Your task to perform on an android device: Go to Reddit.com Image 0: 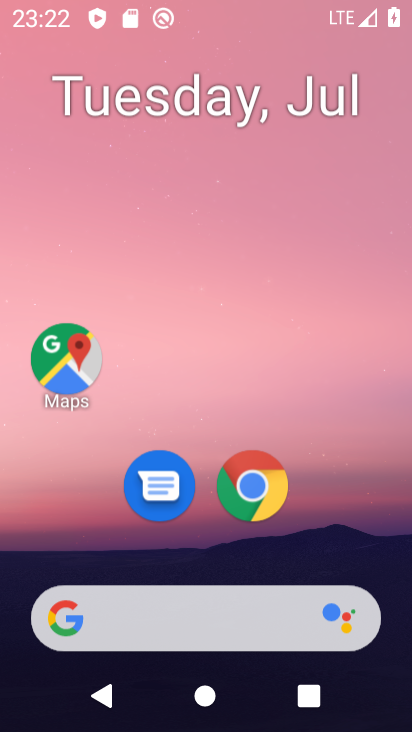
Step 0: click (369, 118)
Your task to perform on an android device: Go to Reddit.com Image 1: 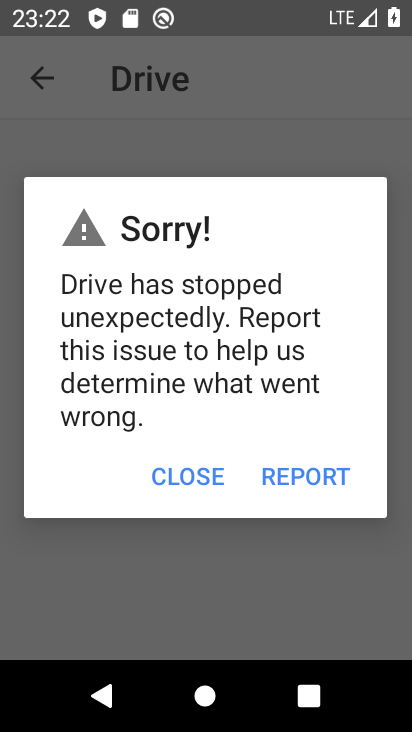
Step 1: press home button
Your task to perform on an android device: Go to Reddit.com Image 2: 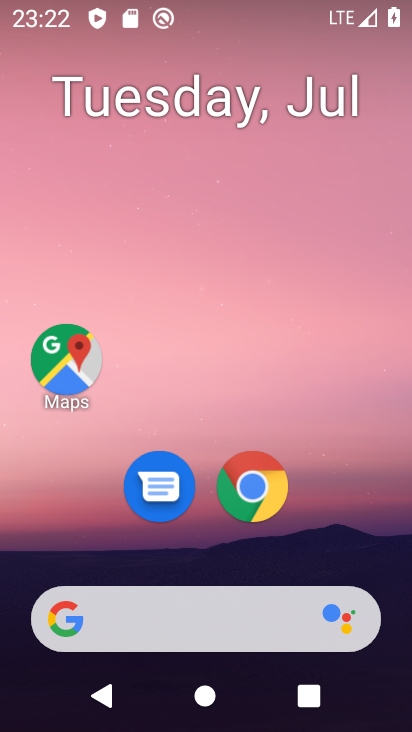
Step 2: drag from (318, 553) to (353, 82)
Your task to perform on an android device: Go to Reddit.com Image 3: 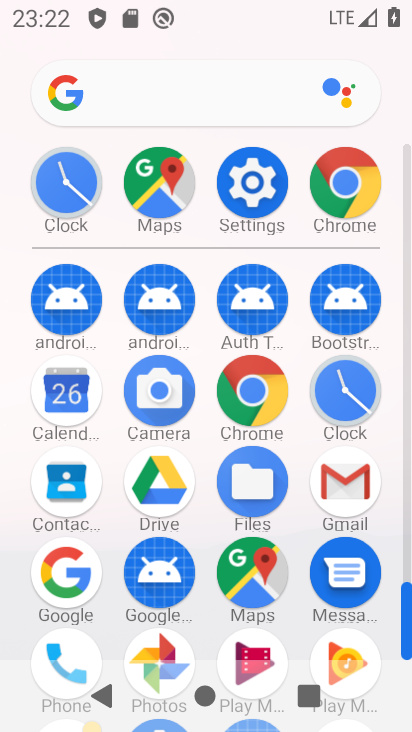
Step 3: click (254, 388)
Your task to perform on an android device: Go to Reddit.com Image 4: 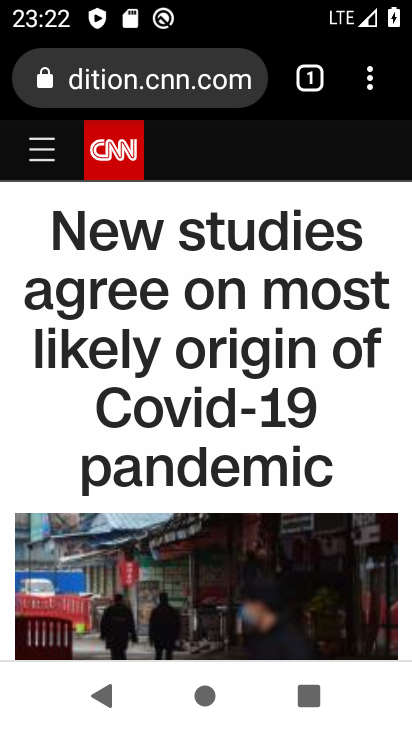
Step 4: click (221, 86)
Your task to perform on an android device: Go to Reddit.com Image 5: 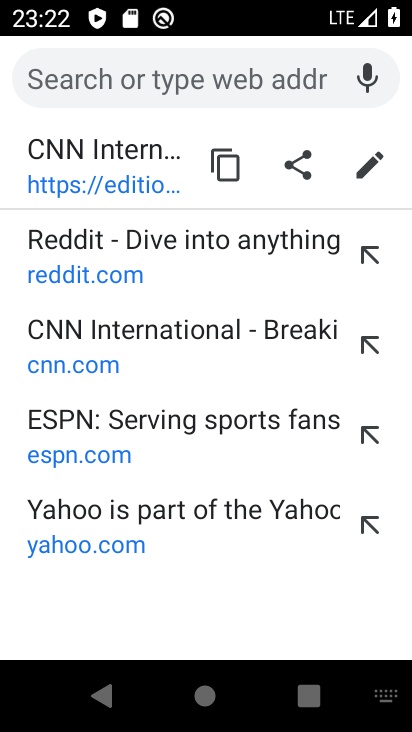
Step 5: type "reddit.com"
Your task to perform on an android device: Go to Reddit.com Image 6: 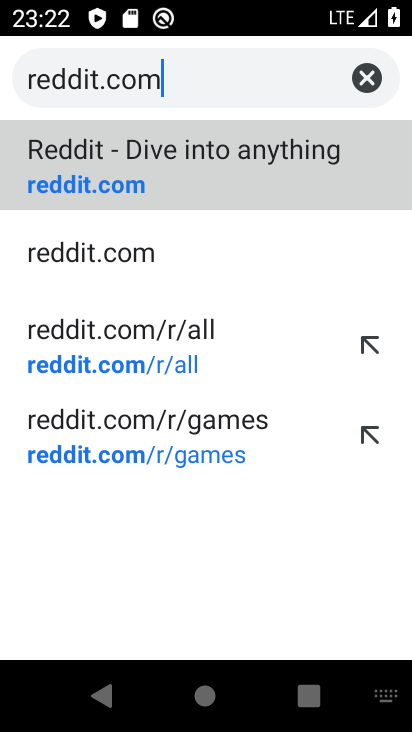
Step 6: click (306, 185)
Your task to perform on an android device: Go to Reddit.com Image 7: 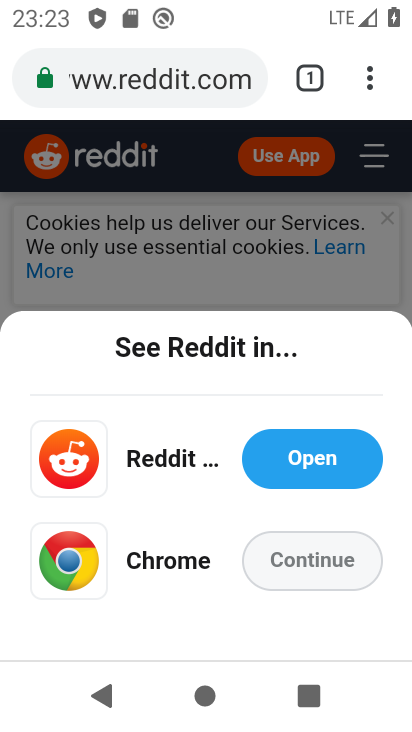
Step 7: task complete